Your task to perform on an android device: Open the calendar and show me this week's events? Image 0: 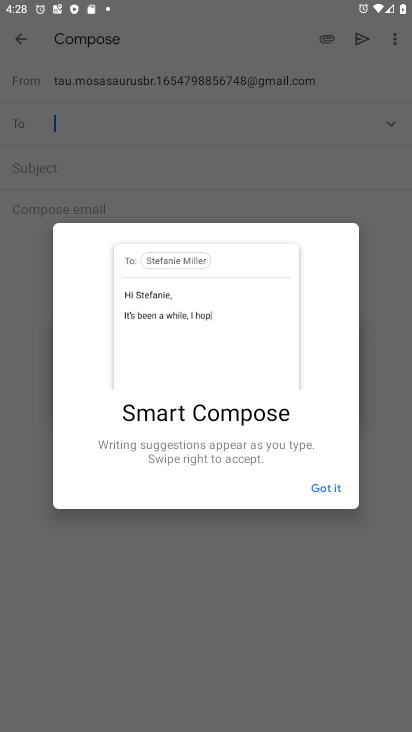
Step 0: press home button
Your task to perform on an android device: Open the calendar and show me this week's events? Image 1: 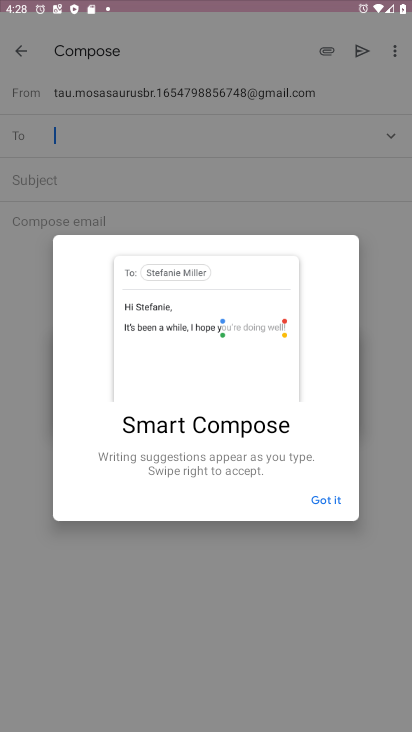
Step 1: drag from (250, 613) to (235, 48)
Your task to perform on an android device: Open the calendar and show me this week's events? Image 2: 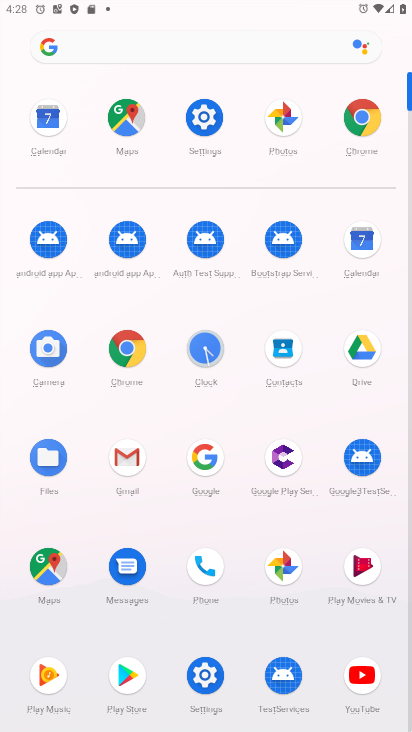
Step 2: click (370, 216)
Your task to perform on an android device: Open the calendar and show me this week's events? Image 3: 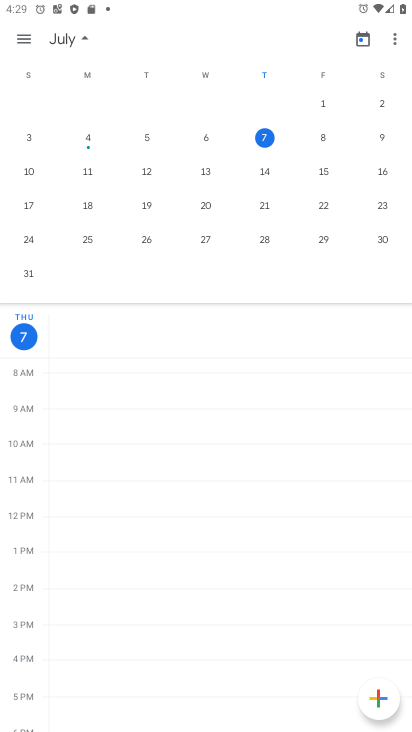
Step 3: click (103, 37)
Your task to perform on an android device: Open the calendar and show me this week's events? Image 4: 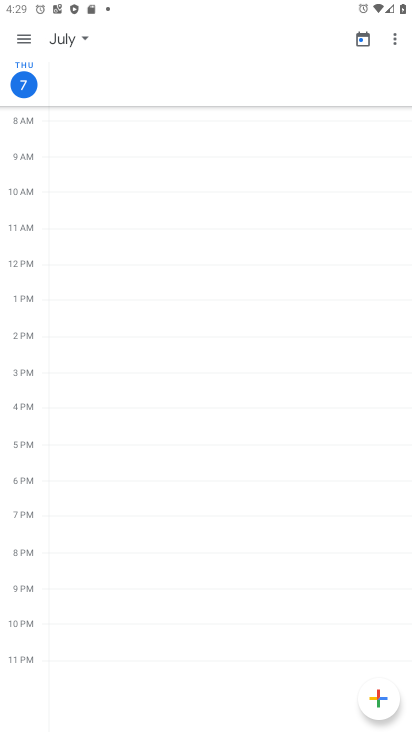
Step 4: task complete